Your task to perform on an android device: remove spam from my inbox in the gmail app Image 0: 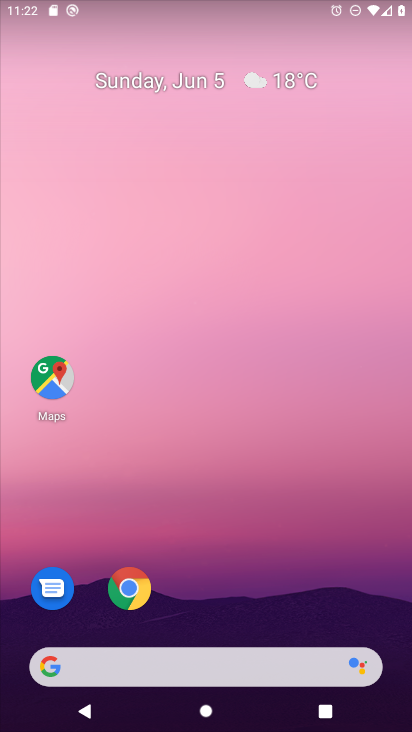
Step 0: drag from (375, 624) to (378, 269)
Your task to perform on an android device: remove spam from my inbox in the gmail app Image 1: 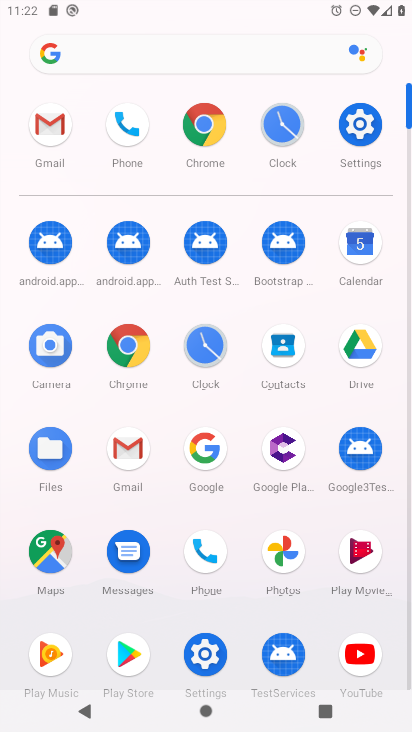
Step 1: click (132, 454)
Your task to perform on an android device: remove spam from my inbox in the gmail app Image 2: 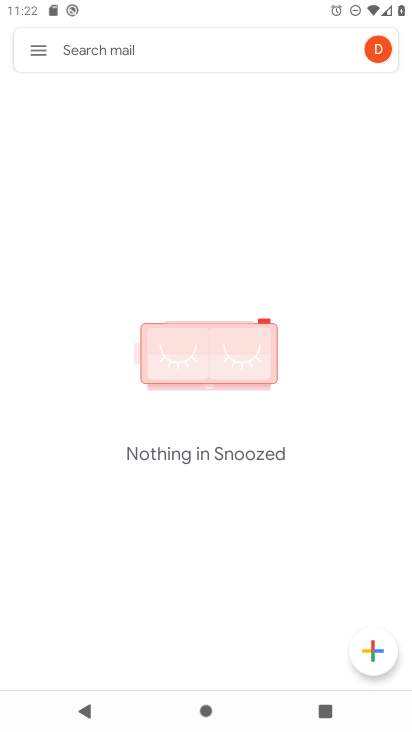
Step 2: click (38, 49)
Your task to perform on an android device: remove spam from my inbox in the gmail app Image 3: 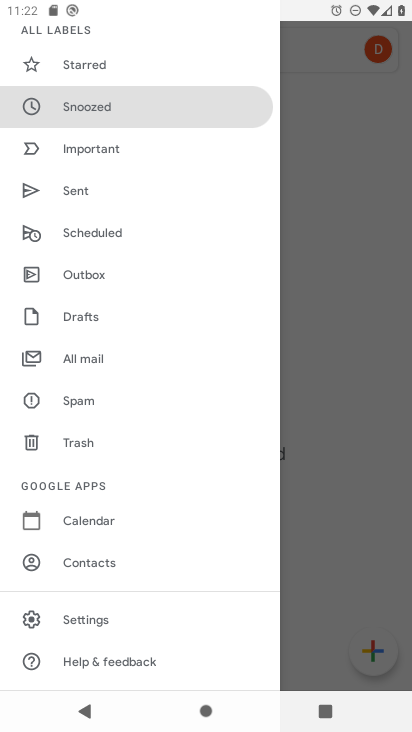
Step 3: drag from (198, 438) to (215, 297)
Your task to perform on an android device: remove spam from my inbox in the gmail app Image 4: 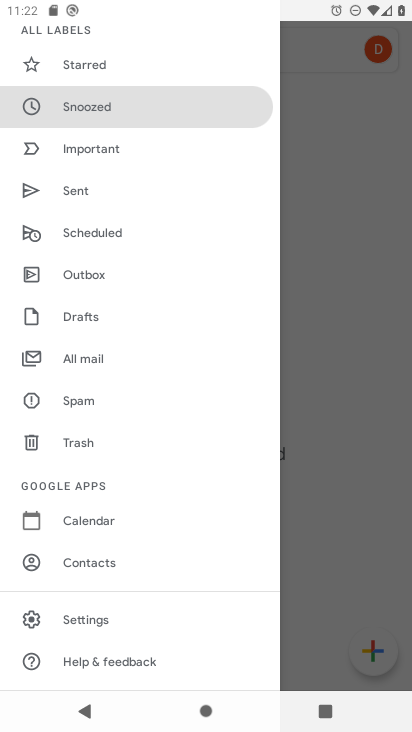
Step 4: click (86, 410)
Your task to perform on an android device: remove spam from my inbox in the gmail app Image 5: 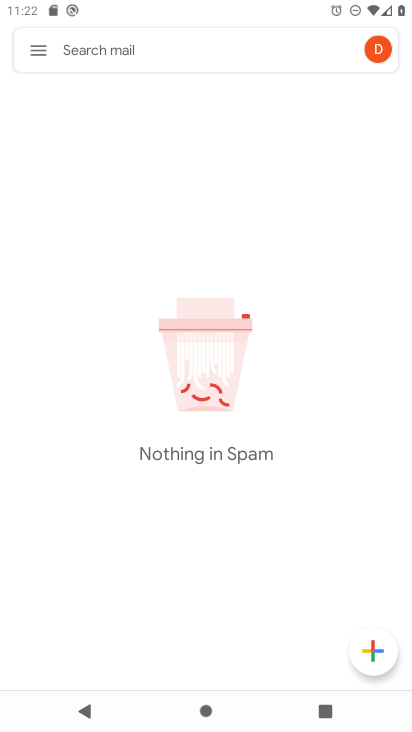
Step 5: task complete